Your task to perform on an android device: change the clock display to analog Image 0: 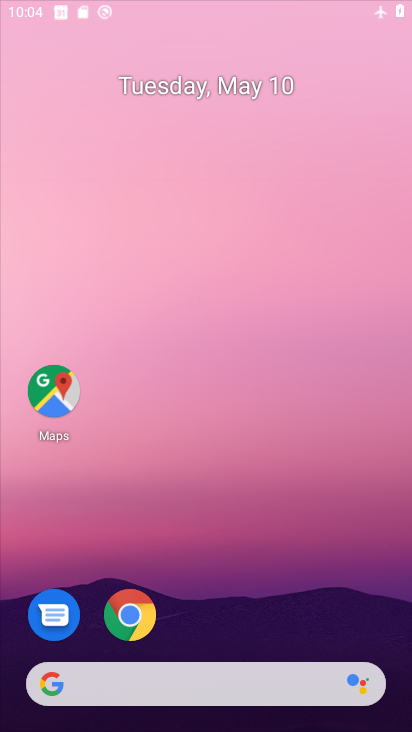
Step 0: click (275, 189)
Your task to perform on an android device: change the clock display to analog Image 1: 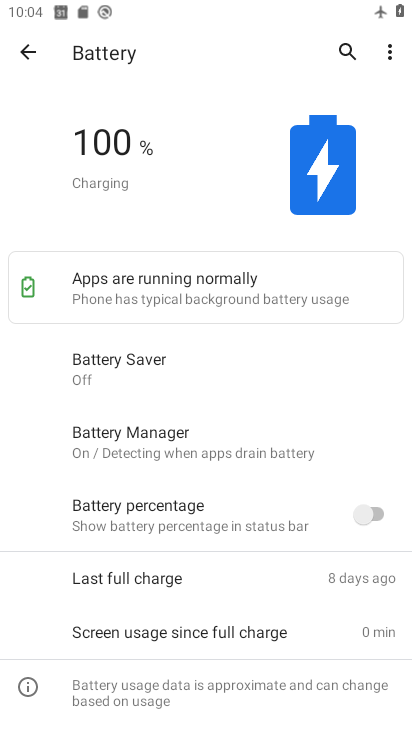
Step 1: press home button
Your task to perform on an android device: change the clock display to analog Image 2: 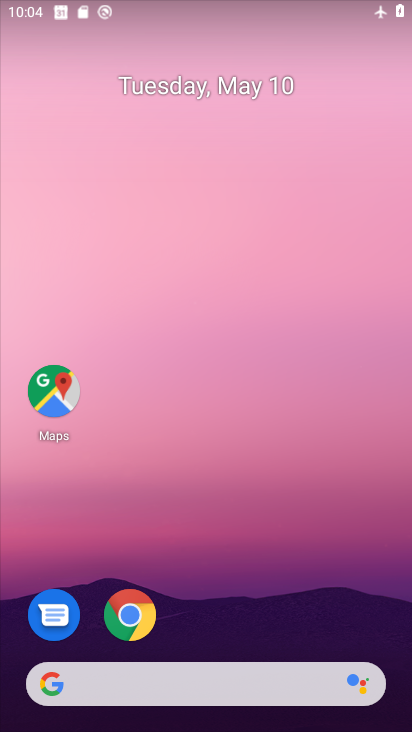
Step 2: click (197, 676)
Your task to perform on an android device: change the clock display to analog Image 3: 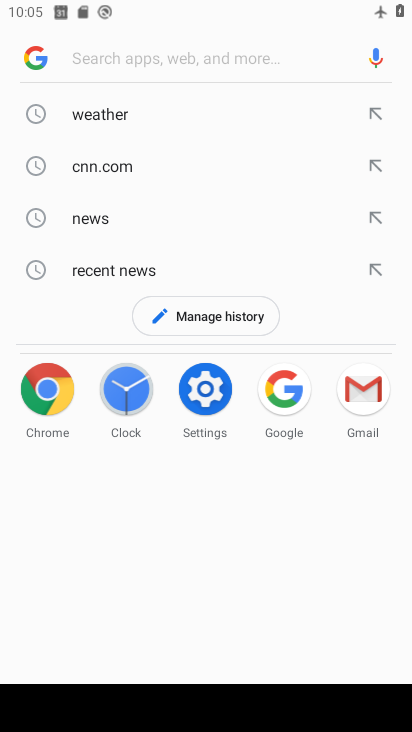
Step 3: press home button
Your task to perform on an android device: change the clock display to analog Image 4: 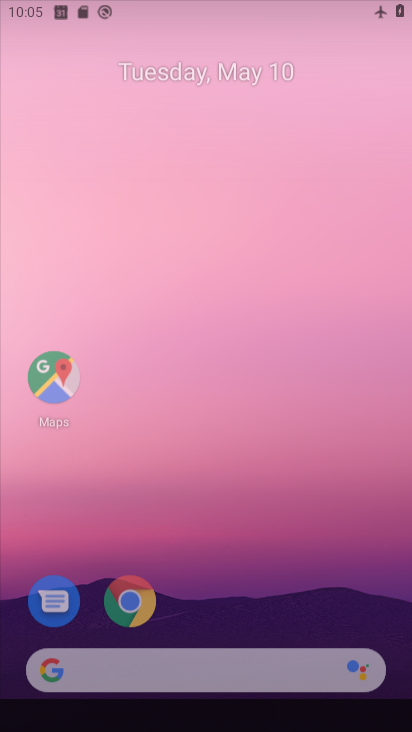
Step 4: drag from (202, 603) to (224, 160)
Your task to perform on an android device: change the clock display to analog Image 5: 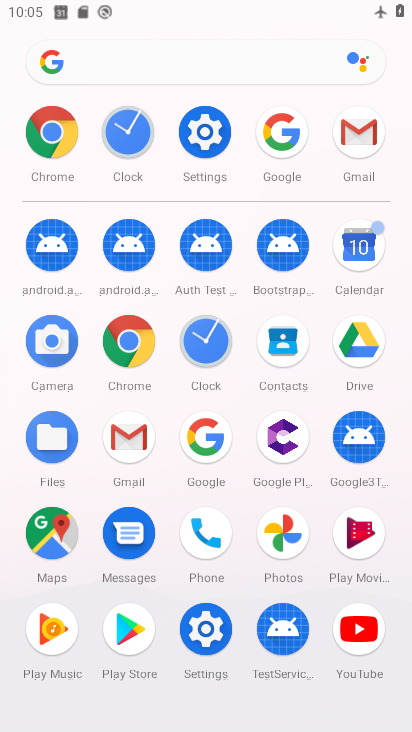
Step 5: click (224, 341)
Your task to perform on an android device: change the clock display to analog Image 6: 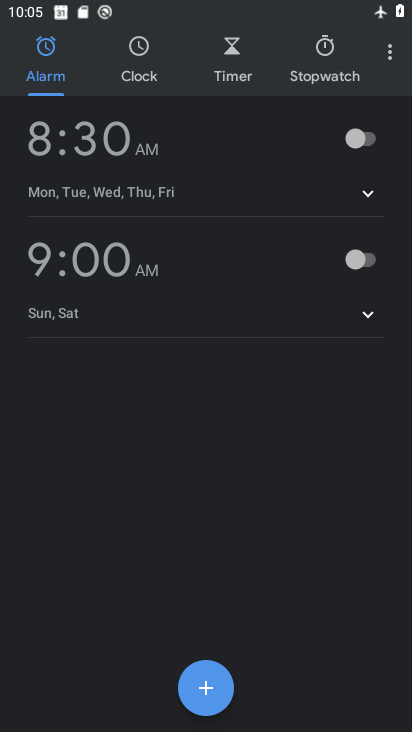
Step 6: click (397, 52)
Your task to perform on an android device: change the clock display to analog Image 7: 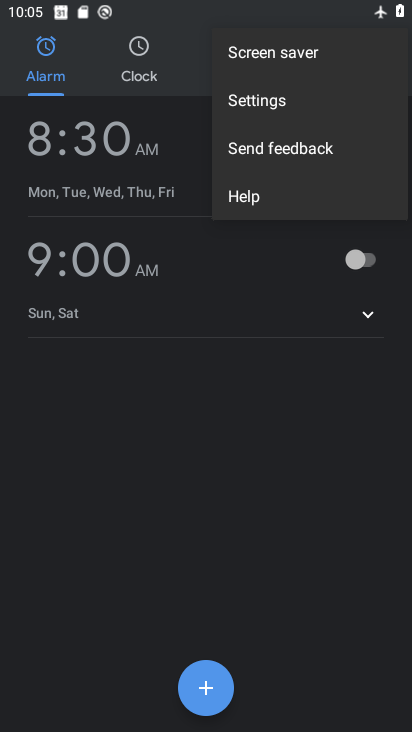
Step 7: click (275, 108)
Your task to perform on an android device: change the clock display to analog Image 8: 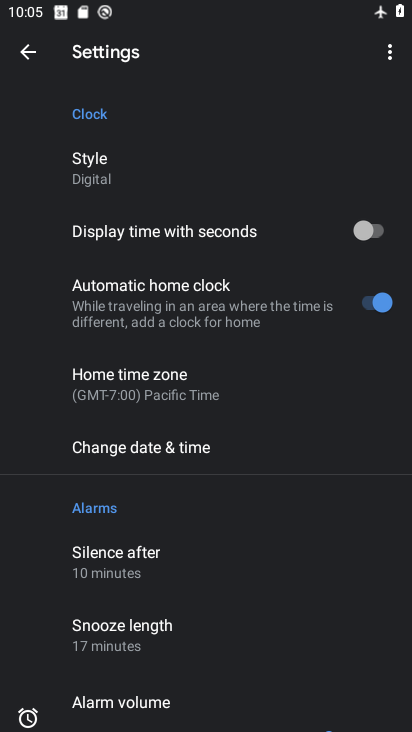
Step 8: click (76, 183)
Your task to perform on an android device: change the clock display to analog Image 9: 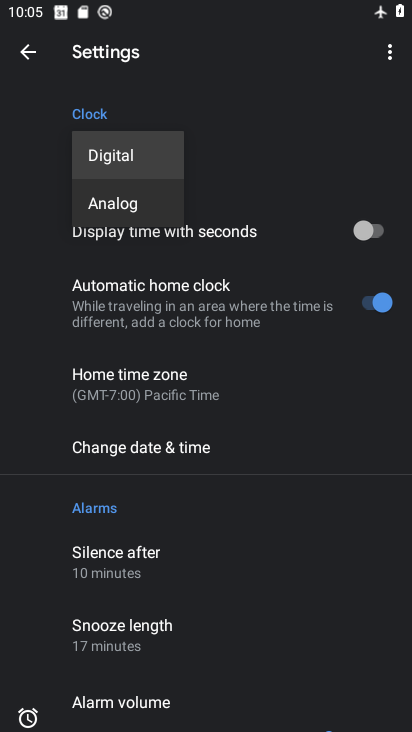
Step 9: click (134, 219)
Your task to perform on an android device: change the clock display to analog Image 10: 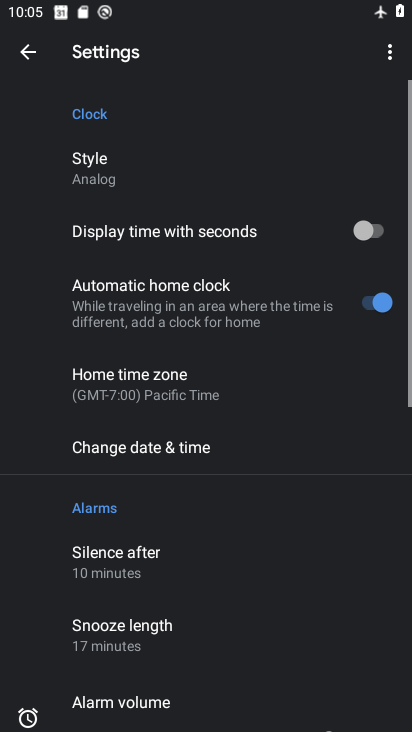
Step 10: task complete